Your task to perform on an android device: What is the recent news? Image 0: 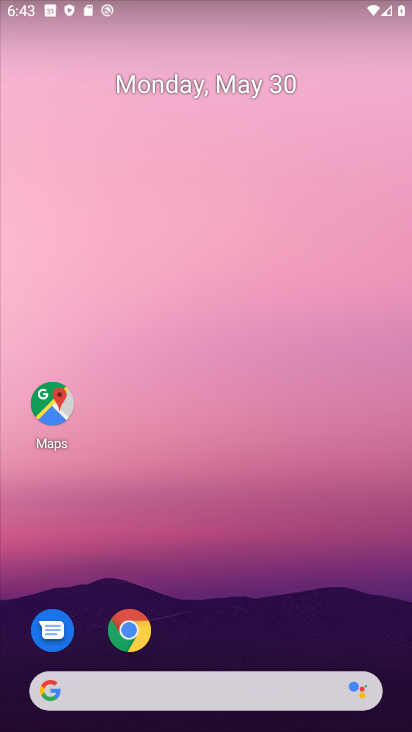
Step 0: drag from (317, 633) to (268, 3)
Your task to perform on an android device: What is the recent news? Image 1: 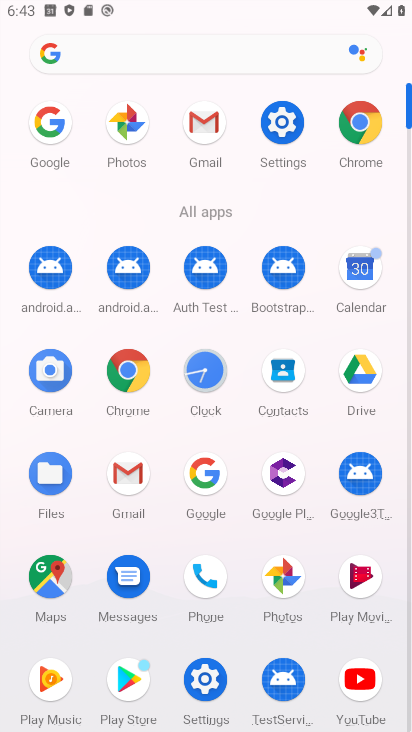
Step 1: click (216, 464)
Your task to perform on an android device: What is the recent news? Image 2: 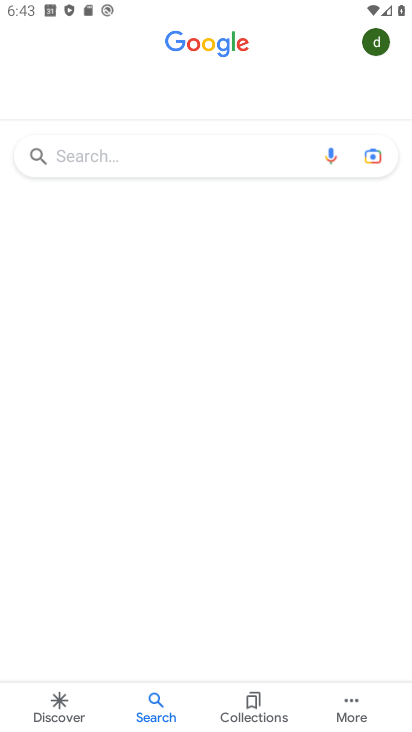
Step 2: click (135, 144)
Your task to perform on an android device: What is the recent news? Image 3: 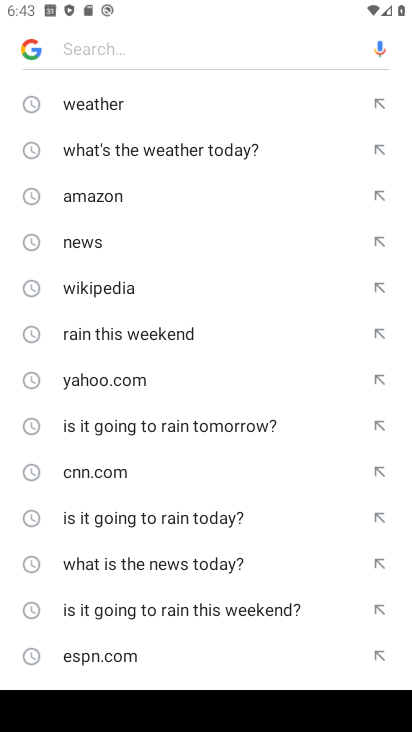
Step 3: drag from (152, 636) to (219, 233)
Your task to perform on an android device: What is the recent news? Image 4: 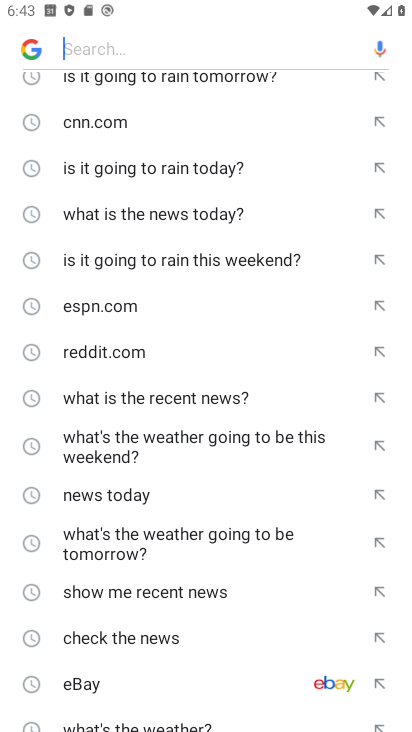
Step 4: drag from (139, 693) to (205, 377)
Your task to perform on an android device: What is the recent news? Image 5: 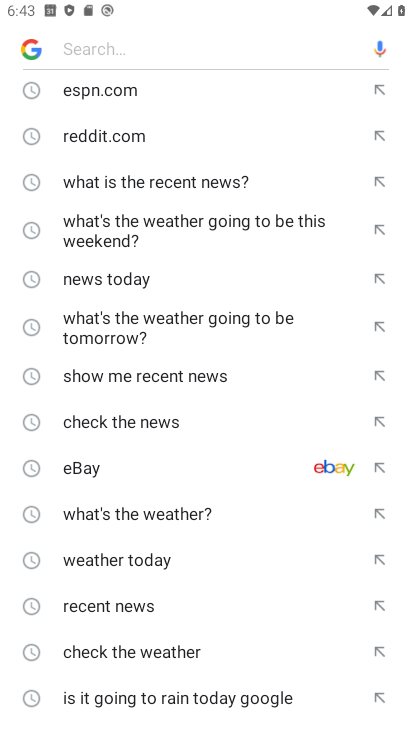
Step 5: click (97, 606)
Your task to perform on an android device: What is the recent news? Image 6: 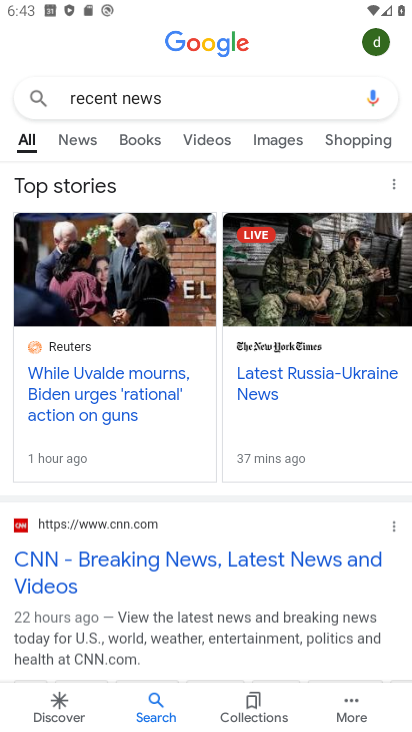
Step 6: task complete